Your task to perform on an android device: Go to Google maps Image 0: 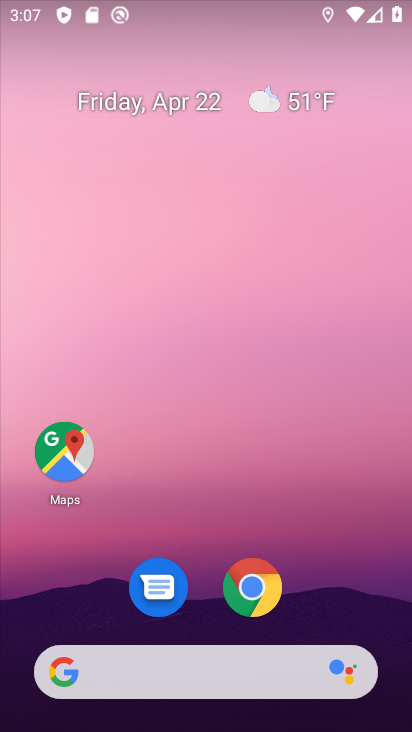
Step 0: click (49, 463)
Your task to perform on an android device: Go to Google maps Image 1: 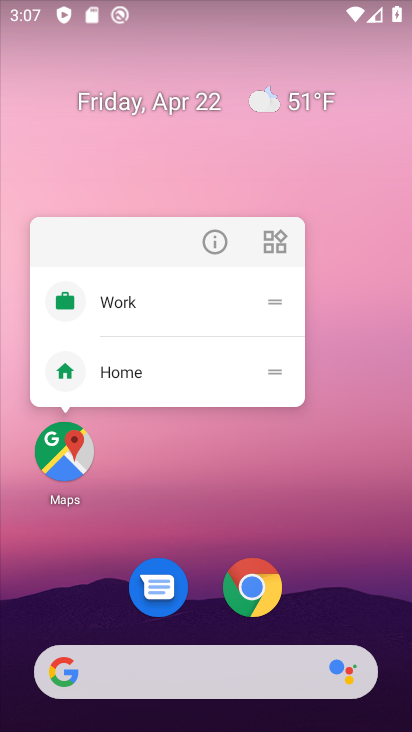
Step 1: click (216, 238)
Your task to perform on an android device: Go to Google maps Image 2: 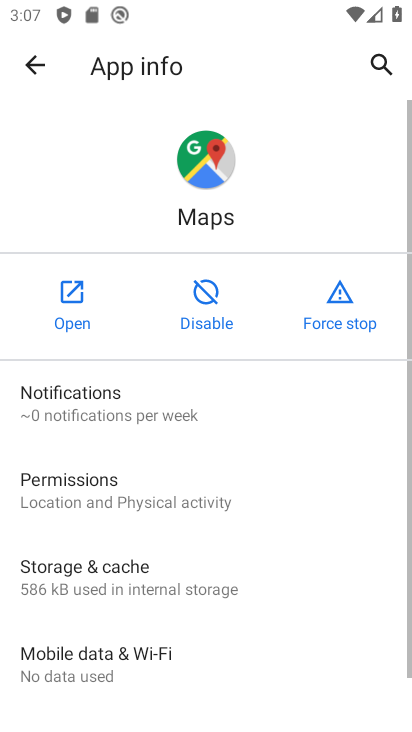
Step 2: click (59, 288)
Your task to perform on an android device: Go to Google maps Image 3: 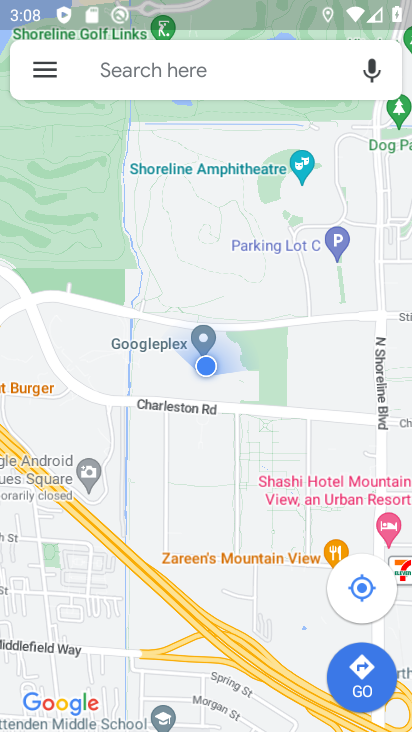
Step 3: task complete